Your task to perform on an android device: toggle pop-ups in chrome Image 0: 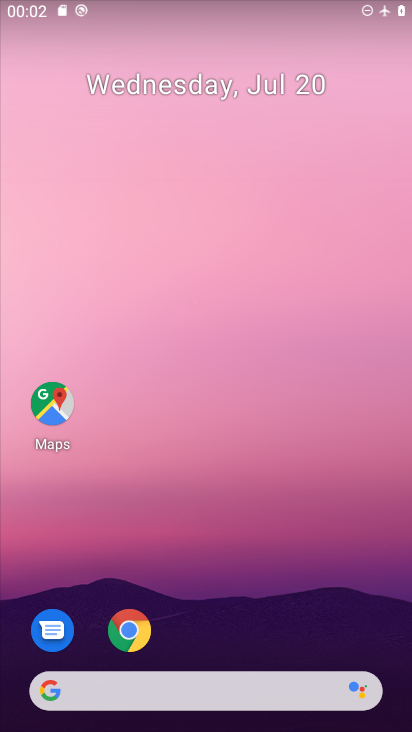
Step 0: click (137, 641)
Your task to perform on an android device: toggle pop-ups in chrome Image 1: 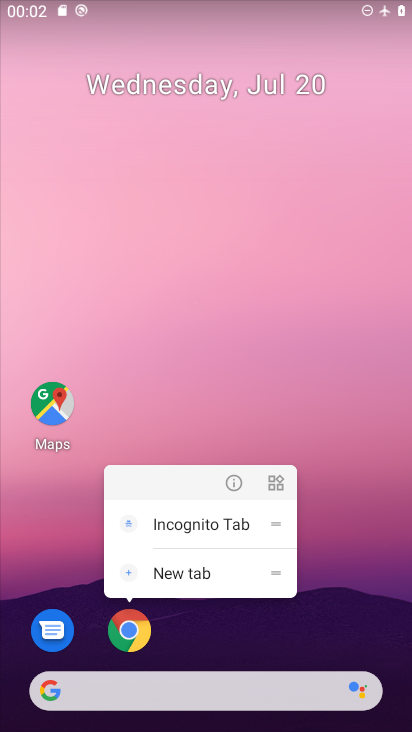
Step 1: click (229, 489)
Your task to perform on an android device: toggle pop-ups in chrome Image 2: 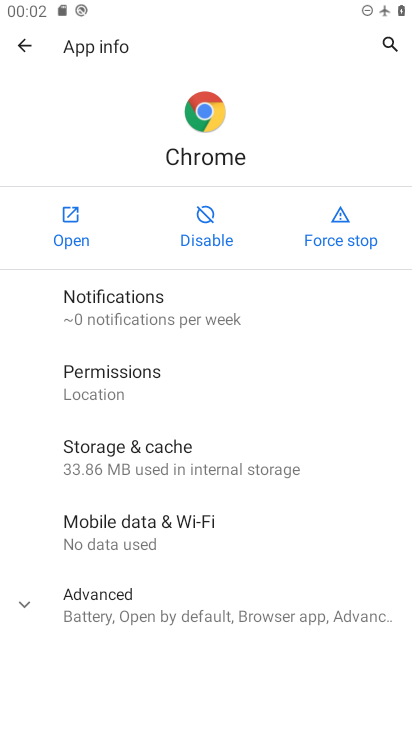
Step 2: press home button
Your task to perform on an android device: toggle pop-ups in chrome Image 3: 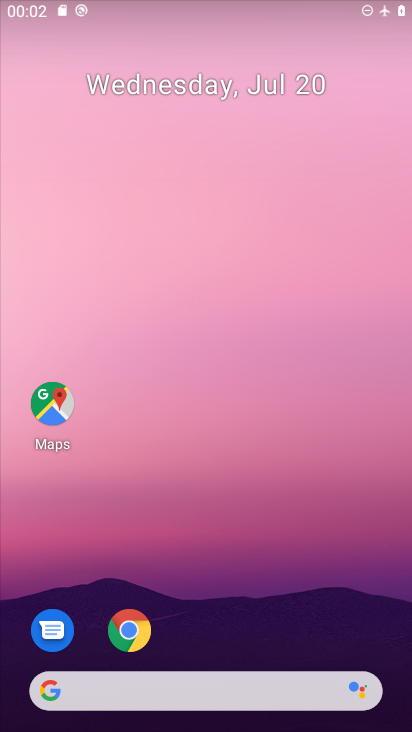
Step 3: click (139, 604)
Your task to perform on an android device: toggle pop-ups in chrome Image 4: 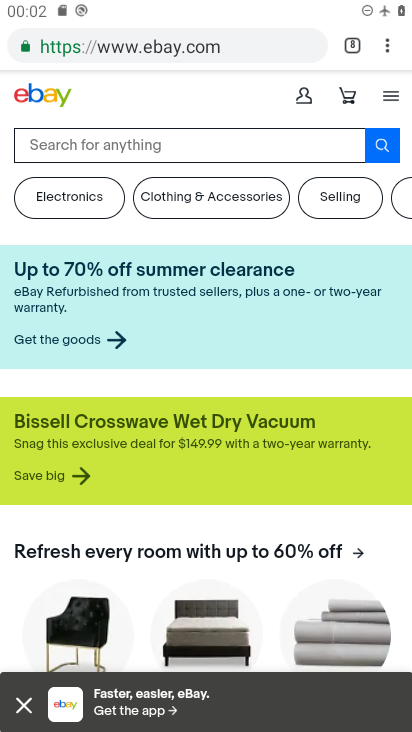
Step 4: click (392, 49)
Your task to perform on an android device: toggle pop-ups in chrome Image 5: 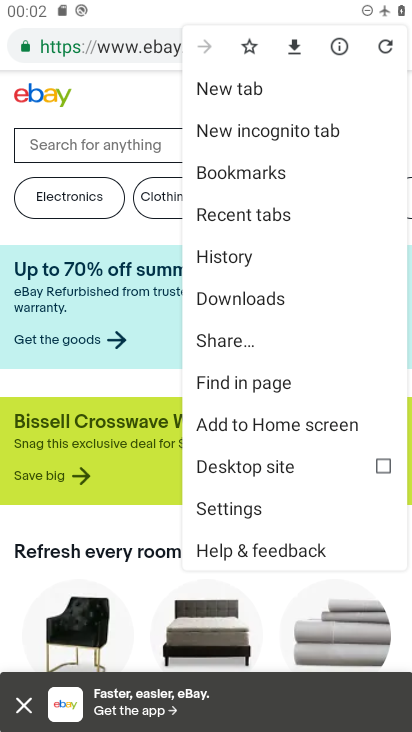
Step 5: click (267, 507)
Your task to perform on an android device: toggle pop-ups in chrome Image 6: 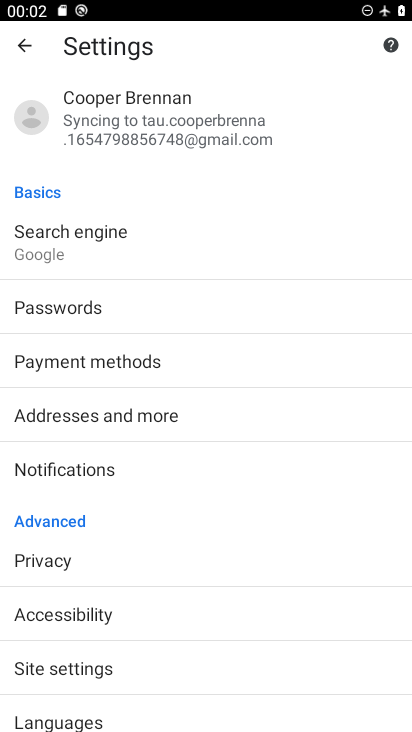
Step 6: click (123, 667)
Your task to perform on an android device: toggle pop-ups in chrome Image 7: 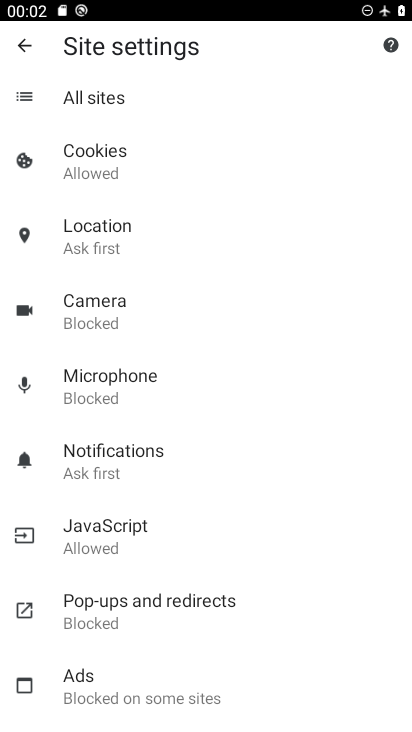
Step 7: click (171, 598)
Your task to perform on an android device: toggle pop-ups in chrome Image 8: 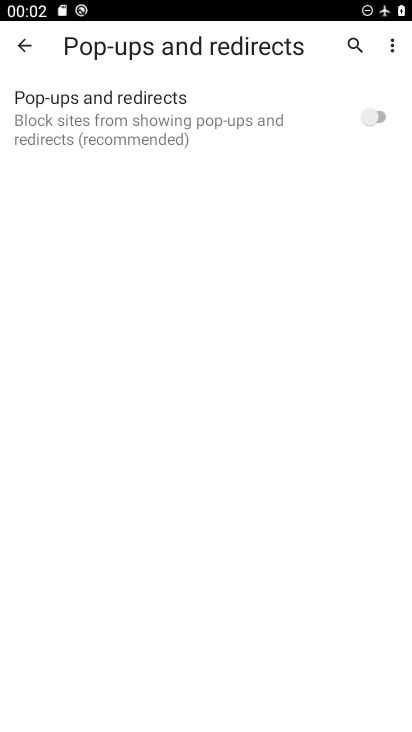
Step 8: click (380, 116)
Your task to perform on an android device: toggle pop-ups in chrome Image 9: 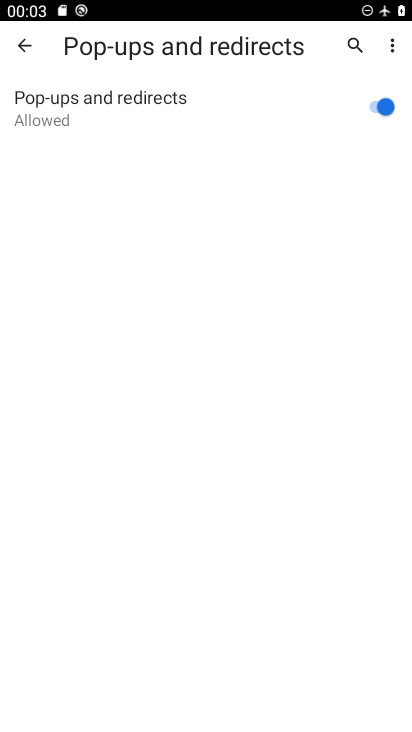
Step 9: task complete